Your task to perform on an android device: Open the web browser Image 0: 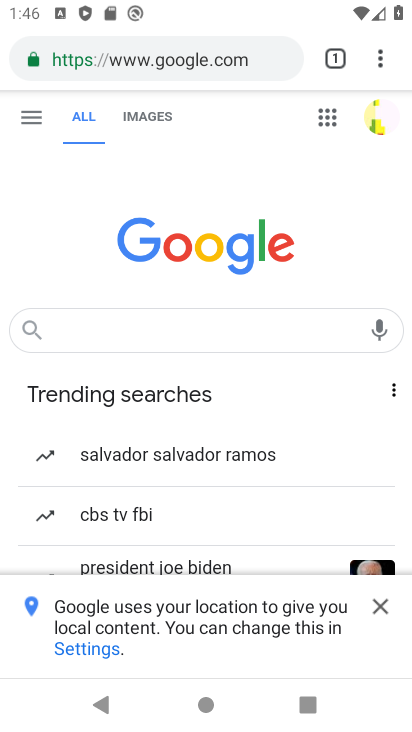
Step 0: task complete